Your task to perform on an android device: Open the phone app and click the voicemail tab. Image 0: 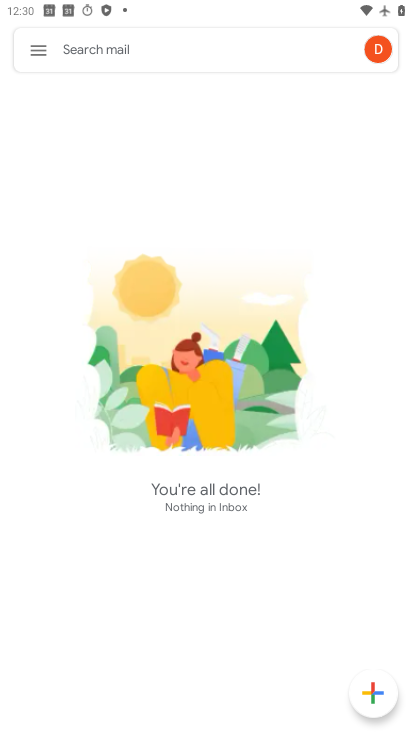
Step 0: press home button
Your task to perform on an android device: Open the phone app and click the voicemail tab. Image 1: 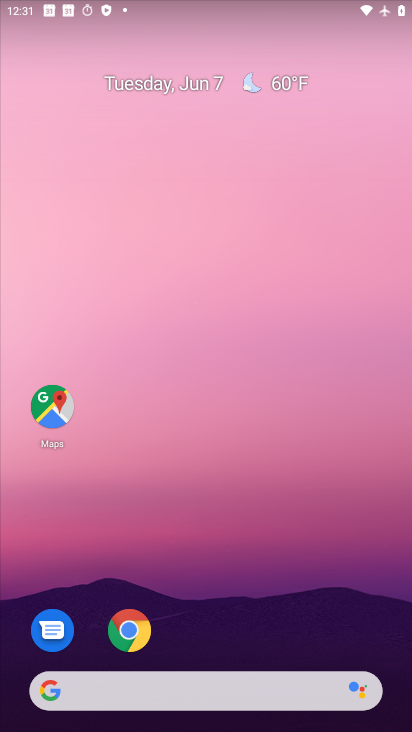
Step 1: drag from (356, 644) to (222, 55)
Your task to perform on an android device: Open the phone app and click the voicemail tab. Image 2: 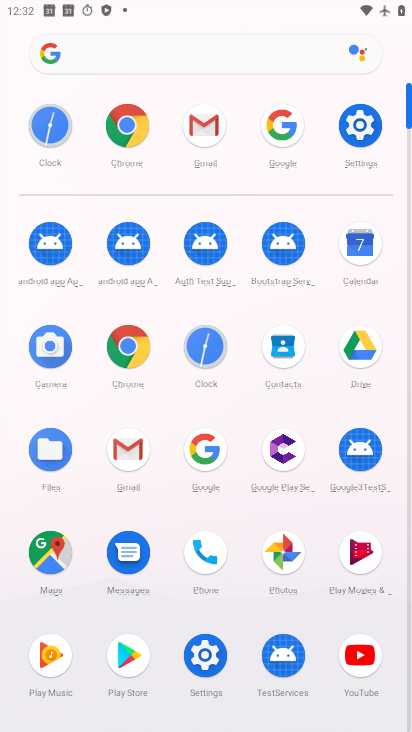
Step 2: click (214, 552)
Your task to perform on an android device: Open the phone app and click the voicemail tab. Image 3: 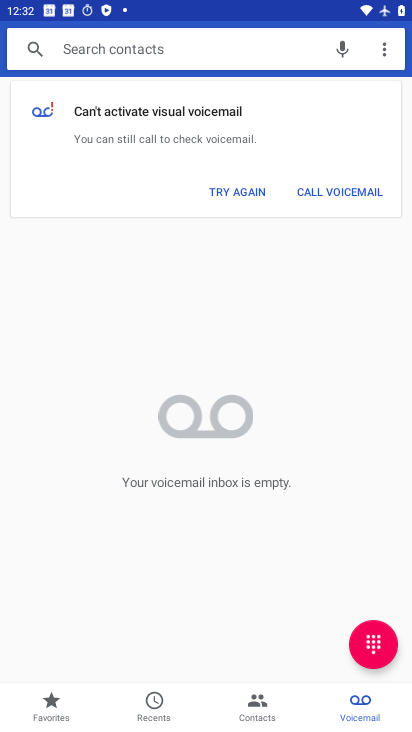
Step 3: task complete